Your task to perform on an android device: Search for seafood restaurants on Google Maps Image 0: 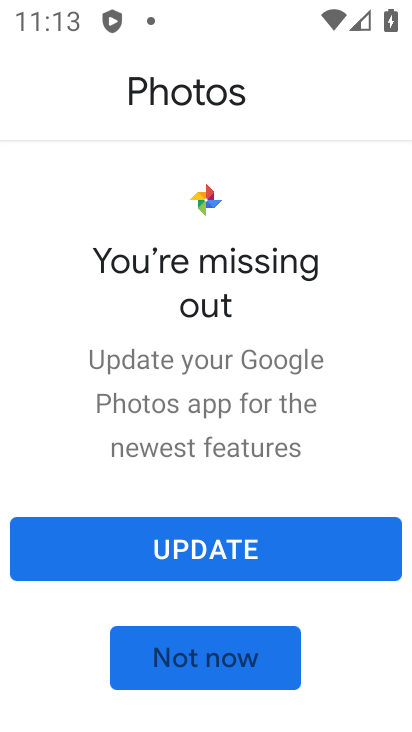
Step 0: press home button
Your task to perform on an android device: Search for seafood restaurants on Google Maps Image 1: 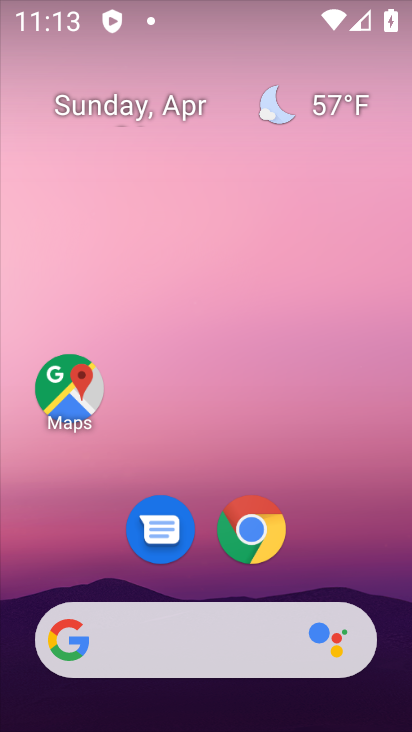
Step 1: click (74, 390)
Your task to perform on an android device: Search for seafood restaurants on Google Maps Image 2: 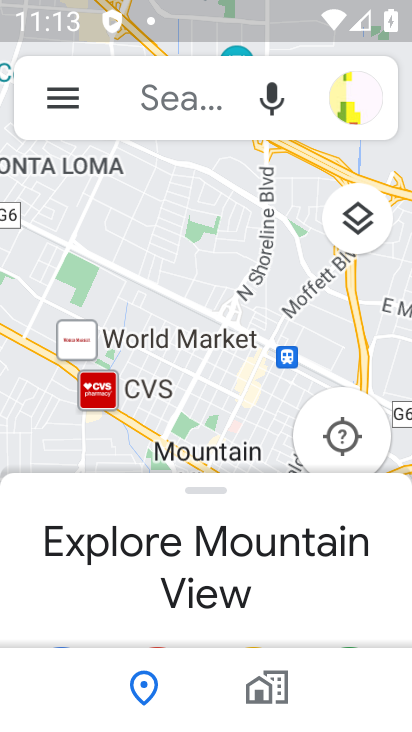
Step 2: click (176, 101)
Your task to perform on an android device: Search for seafood restaurants on Google Maps Image 3: 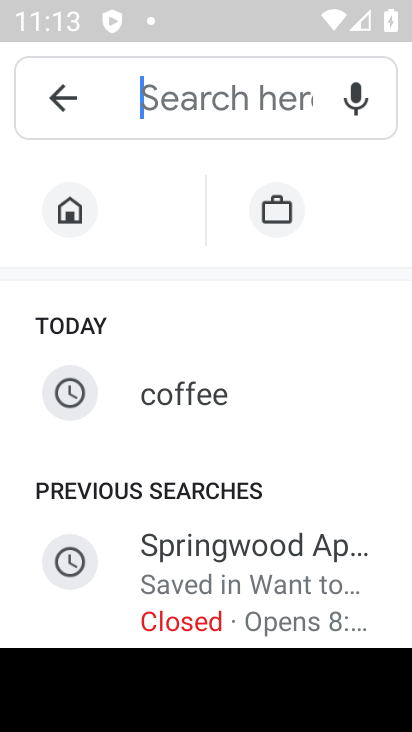
Step 3: type "Seafood restaurants"
Your task to perform on an android device: Search for seafood restaurants on Google Maps Image 4: 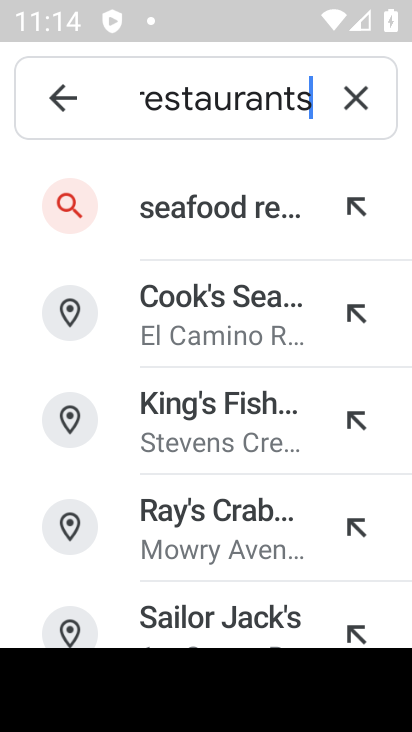
Step 4: click (259, 214)
Your task to perform on an android device: Search for seafood restaurants on Google Maps Image 5: 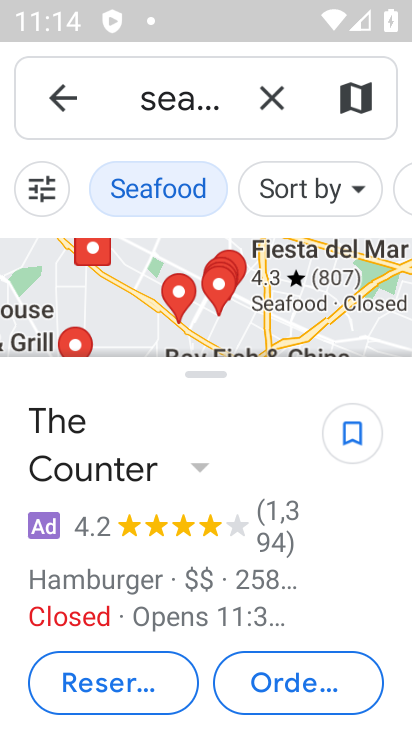
Step 5: task complete